Your task to perform on an android device: delete a single message in the gmail app Image 0: 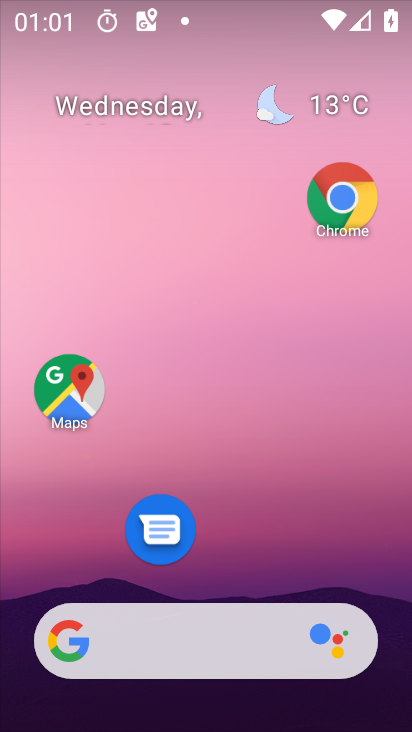
Step 0: drag from (238, 576) to (225, 144)
Your task to perform on an android device: delete a single message in the gmail app Image 1: 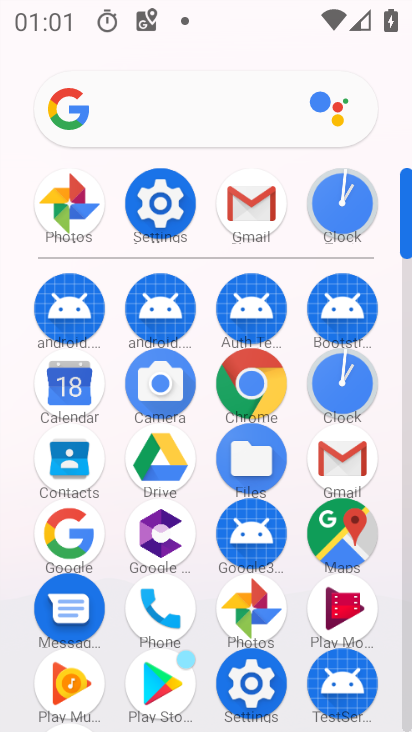
Step 1: click (265, 212)
Your task to perform on an android device: delete a single message in the gmail app Image 2: 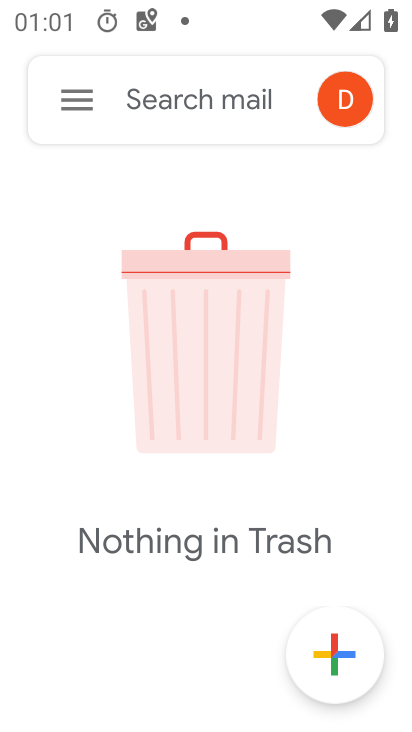
Step 2: click (83, 108)
Your task to perform on an android device: delete a single message in the gmail app Image 3: 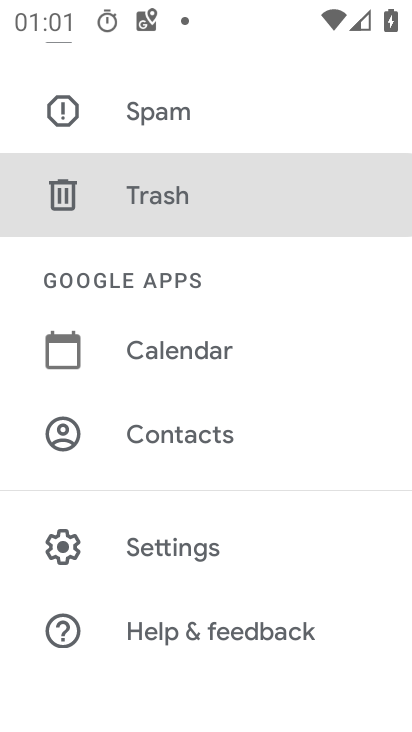
Step 3: drag from (207, 172) to (220, 564)
Your task to perform on an android device: delete a single message in the gmail app Image 4: 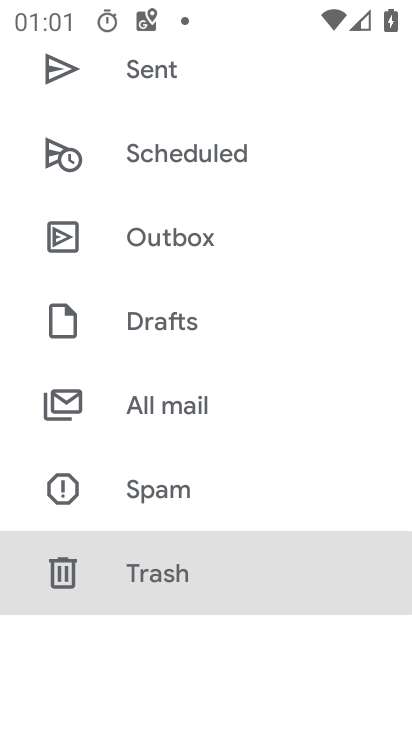
Step 4: click (163, 430)
Your task to perform on an android device: delete a single message in the gmail app Image 5: 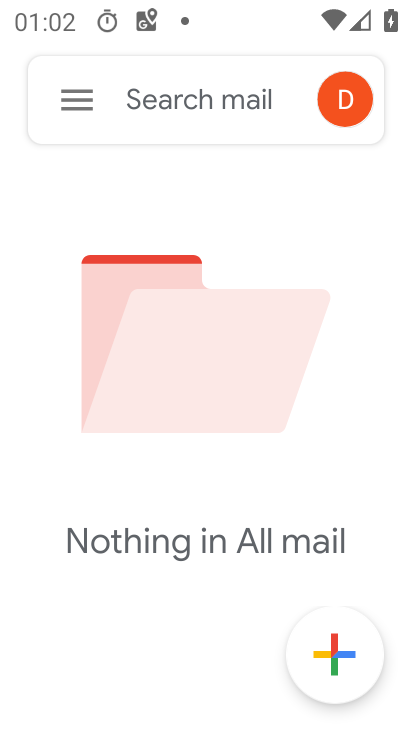
Step 5: task complete